Your task to perform on an android device: delete location history Image 0: 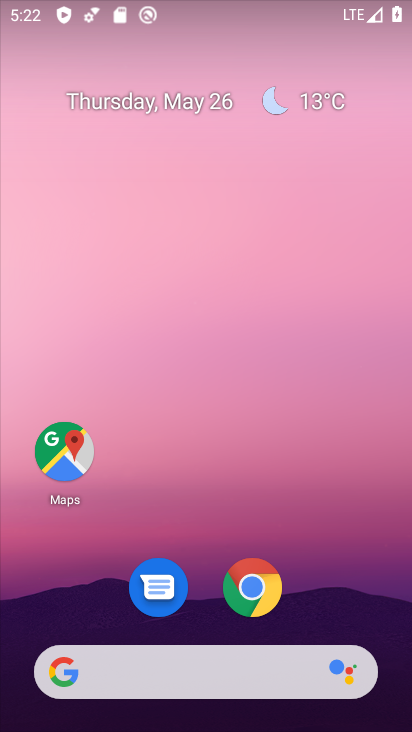
Step 0: drag from (214, 677) to (218, 474)
Your task to perform on an android device: delete location history Image 1: 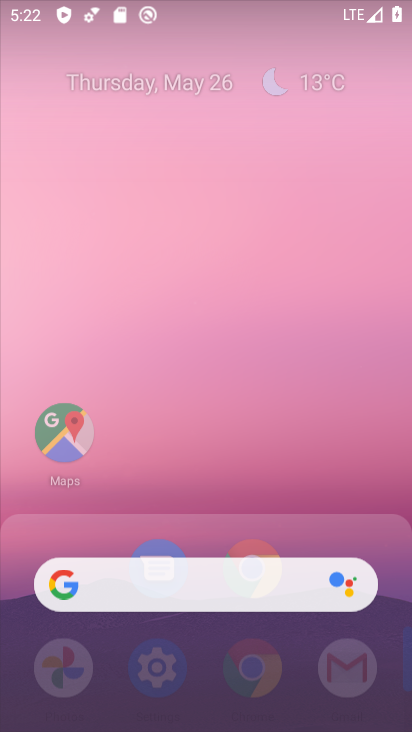
Step 1: drag from (236, 190) to (237, 132)
Your task to perform on an android device: delete location history Image 2: 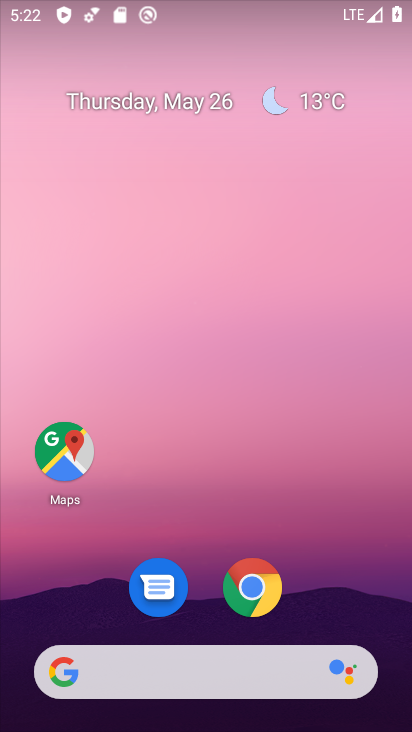
Step 2: drag from (218, 719) to (223, 175)
Your task to perform on an android device: delete location history Image 3: 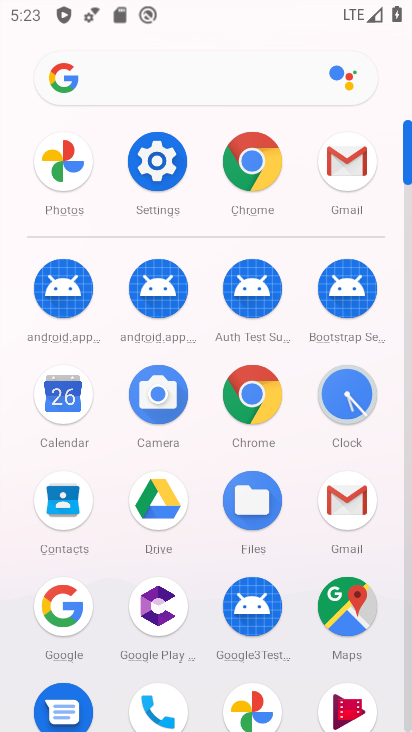
Step 3: click (342, 608)
Your task to perform on an android device: delete location history Image 4: 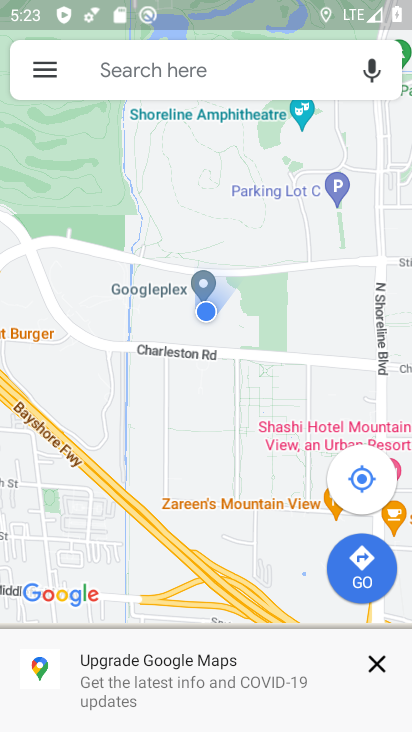
Step 4: click (50, 66)
Your task to perform on an android device: delete location history Image 5: 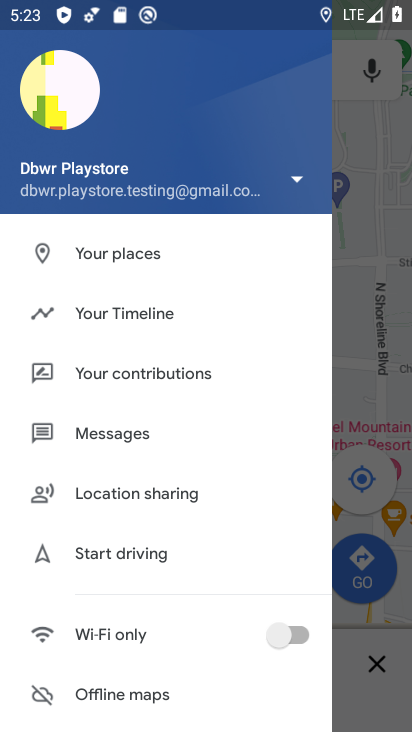
Step 5: drag from (102, 684) to (142, 303)
Your task to perform on an android device: delete location history Image 6: 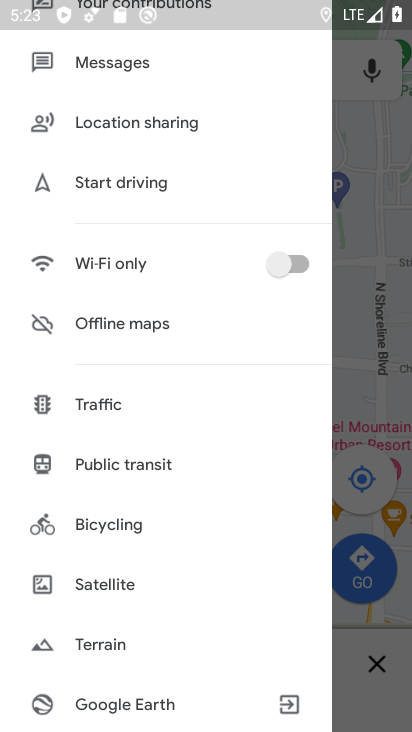
Step 6: drag from (168, 81) to (181, 508)
Your task to perform on an android device: delete location history Image 7: 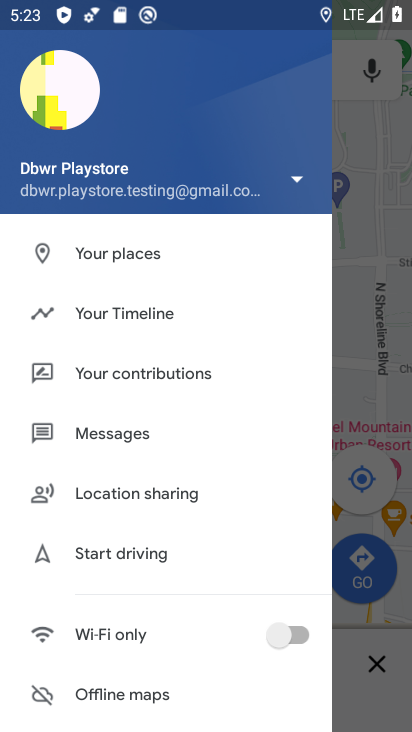
Step 7: click (137, 310)
Your task to perform on an android device: delete location history Image 8: 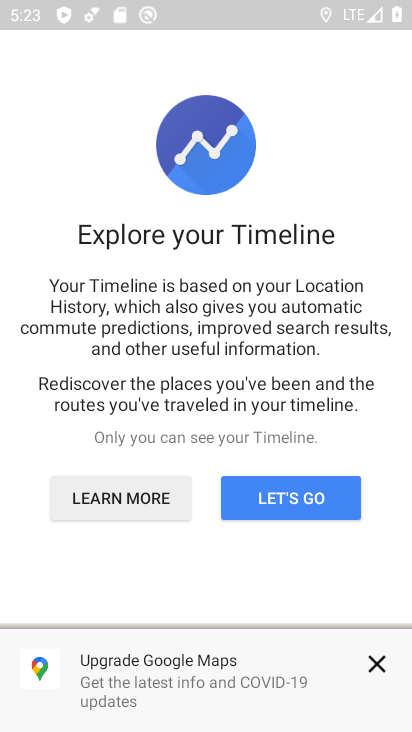
Step 8: click (372, 666)
Your task to perform on an android device: delete location history Image 9: 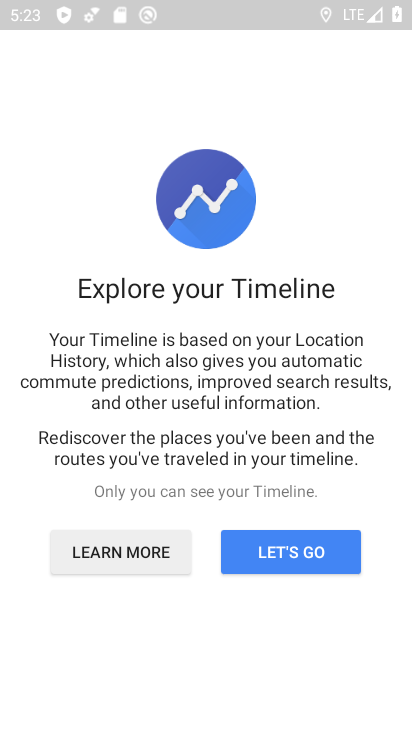
Step 9: click (264, 555)
Your task to perform on an android device: delete location history Image 10: 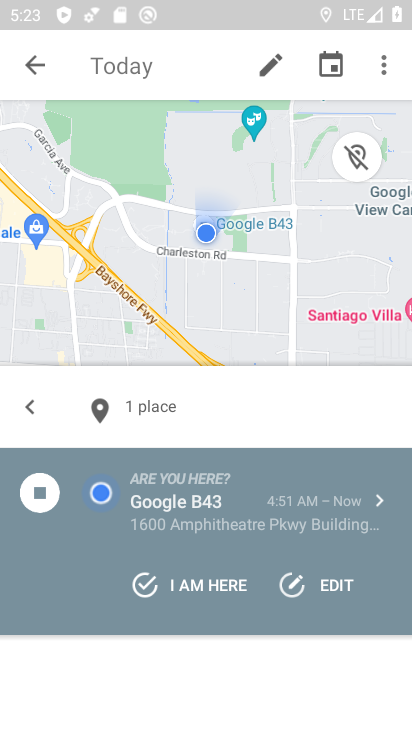
Step 10: click (384, 80)
Your task to perform on an android device: delete location history Image 11: 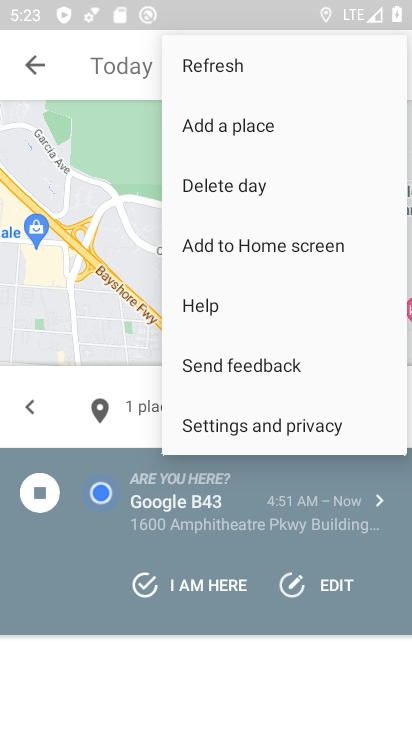
Step 11: click (235, 421)
Your task to perform on an android device: delete location history Image 12: 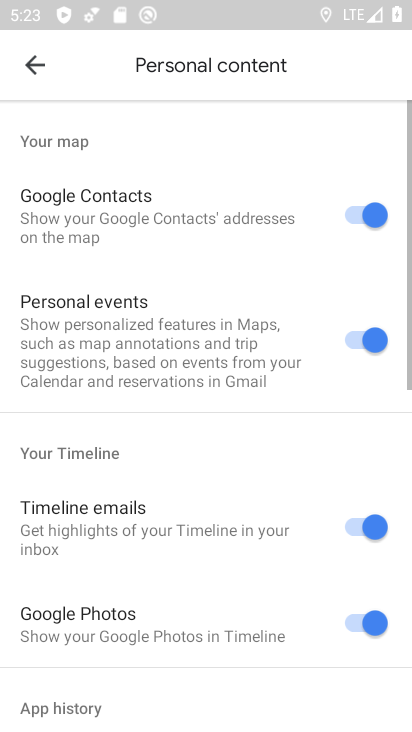
Step 12: drag from (175, 675) to (187, 177)
Your task to perform on an android device: delete location history Image 13: 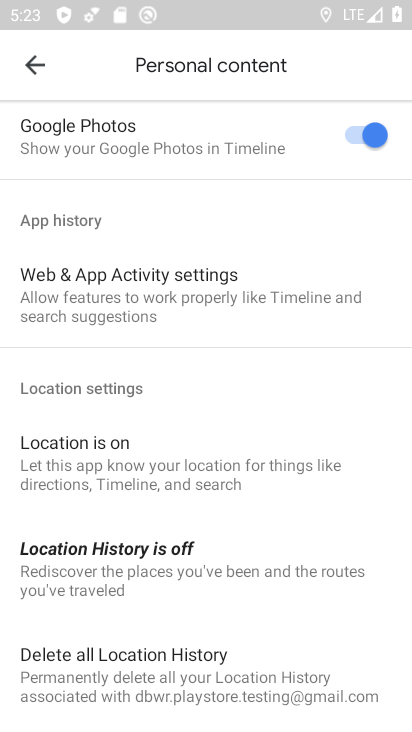
Step 13: drag from (151, 693) to (155, 391)
Your task to perform on an android device: delete location history Image 14: 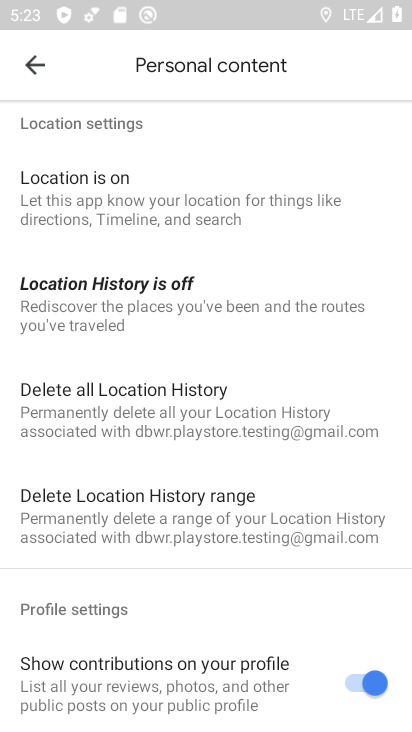
Step 14: click (113, 403)
Your task to perform on an android device: delete location history Image 15: 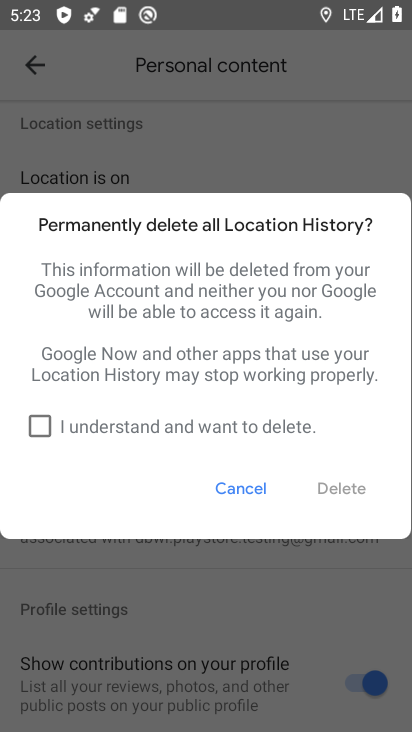
Step 15: click (48, 429)
Your task to perform on an android device: delete location history Image 16: 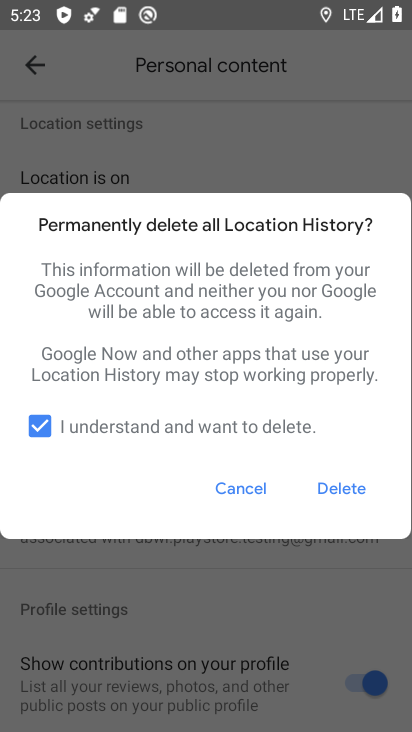
Step 16: click (348, 487)
Your task to perform on an android device: delete location history Image 17: 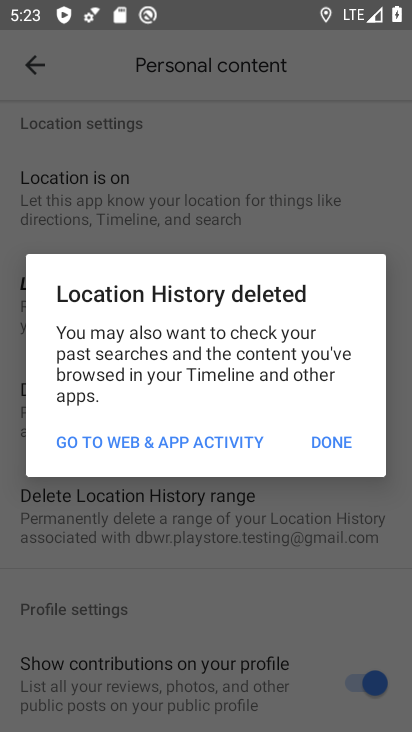
Step 17: click (322, 442)
Your task to perform on an android device: delete location history Image 18: 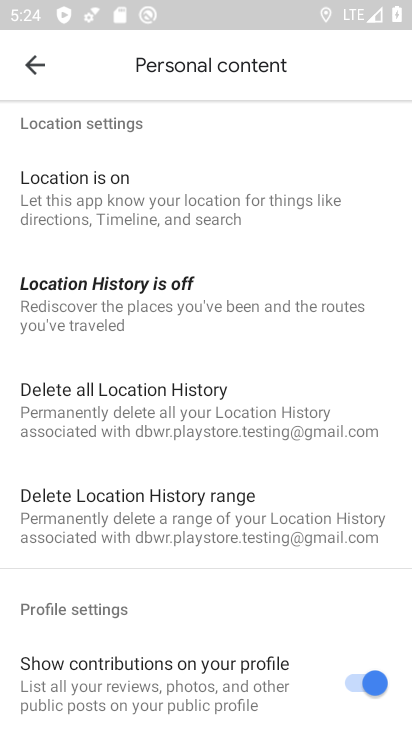
Step 18: task complete